Your task to perform on an android device: Search for Mexican restaurants on Maps Image 0: 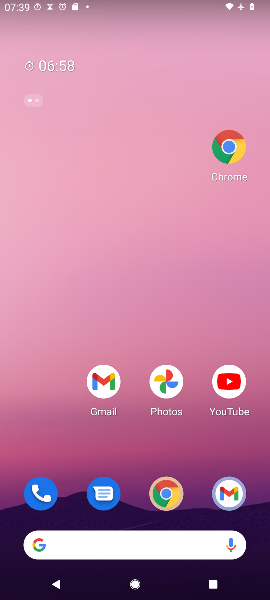
Step 0: drag from (69, 418) to (83, 102)
Your task to perform on an android device: Search for Mexican restaurants on Maps Image 1: 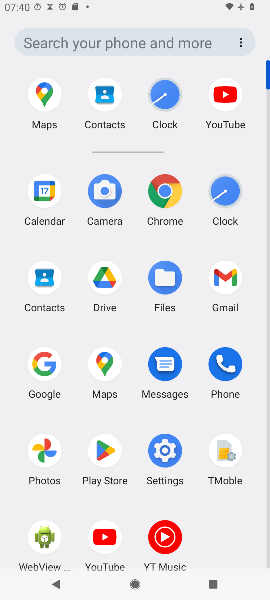
Step 1: click (38, 94)
Your task to perform on an android device: Search for Mexican restaurants on Maps Image 2: 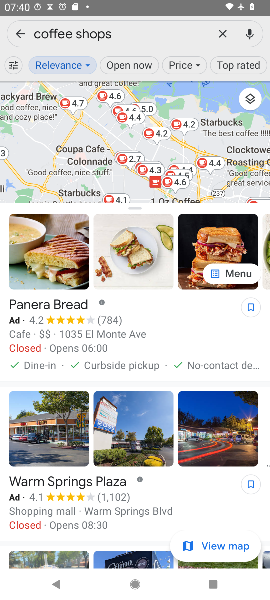
Step 2: click (21, 33)
Your task to perform on an android device: Search for Mexican restaurants on Maps Image 3: 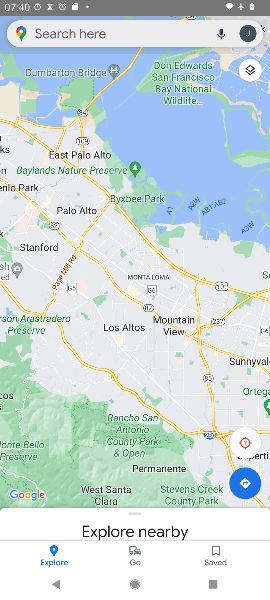
Step 3: type "Mexican restaurants"
Your task to perform on an android device: Search for Mexican restaurants on Maps Image 4: 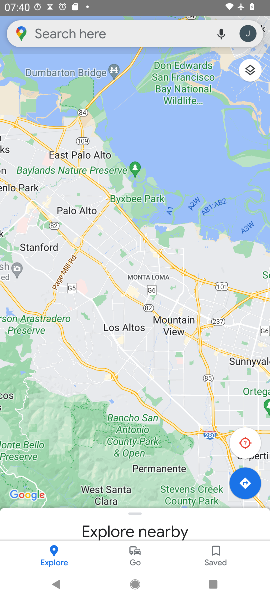
Step 4: click (74, 32)
Your task to perform on an android device: Search for Mexican restaurants on Maps Image 5: 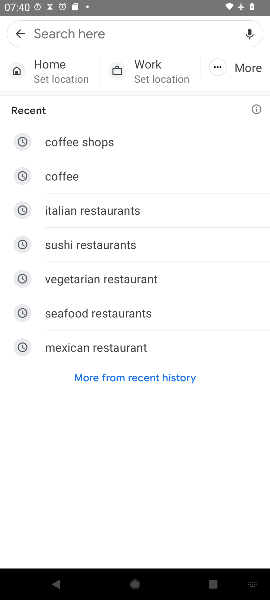
Step 5: click (92, 345)
Your task to perform on an android device: Search for Mexican restaurants on Maps Image 6: 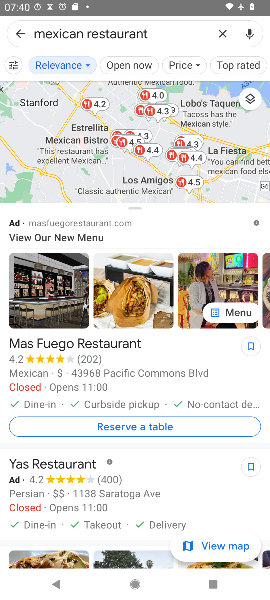
Step 6: task complete